Your task to perform on an android device: Open sound settings Image 0: 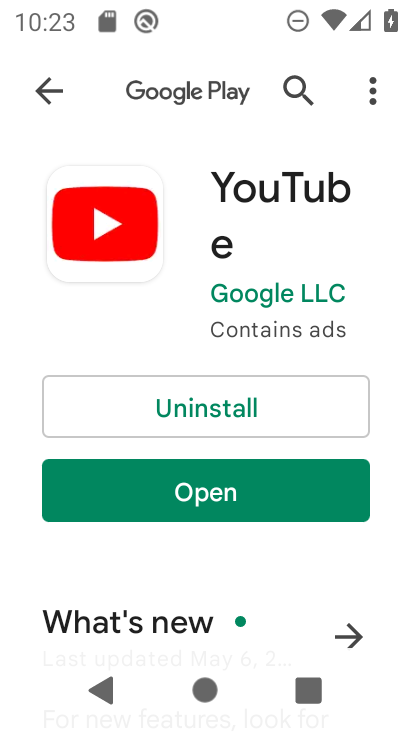
Step 0: click (389, 410)
Your task to perform on an android device: Open sound settings Image 1: 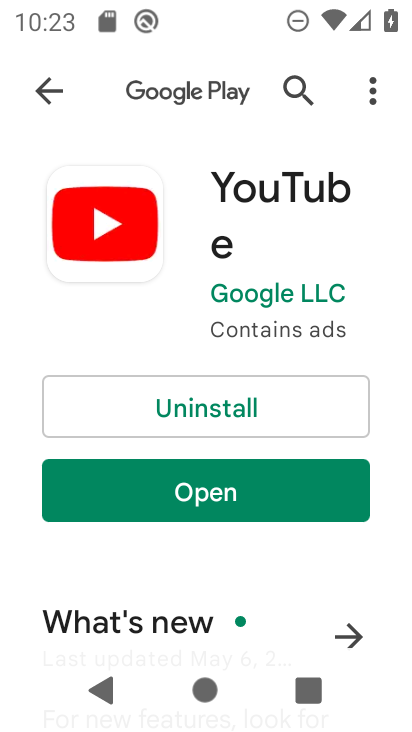
Step 1: press home button
Your task to perform on an android device: Open sound settings Image 2: 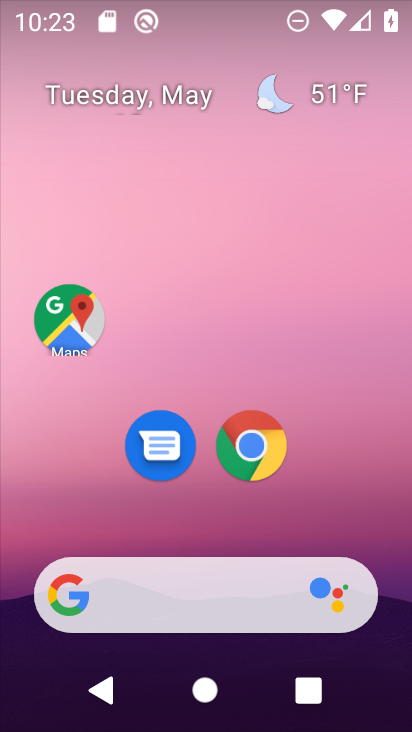
Step 2: drag from (214, 566) to (237, 24)
Your task to perform on an android device: Open sound settings Image 3: 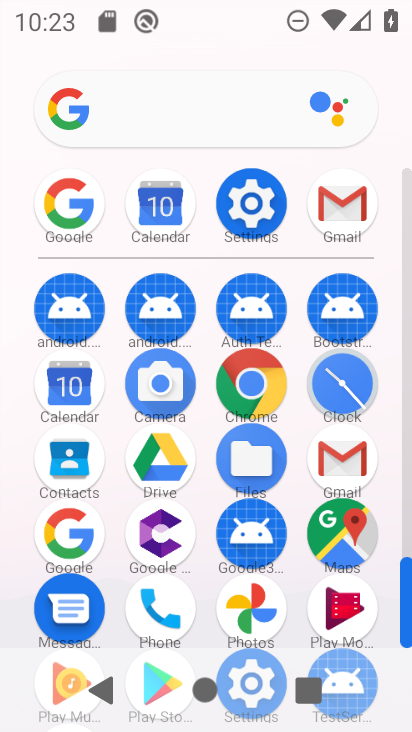
Step 3: click (255, 209)
Your task to perform on an android device: Open sound settings Image 4: 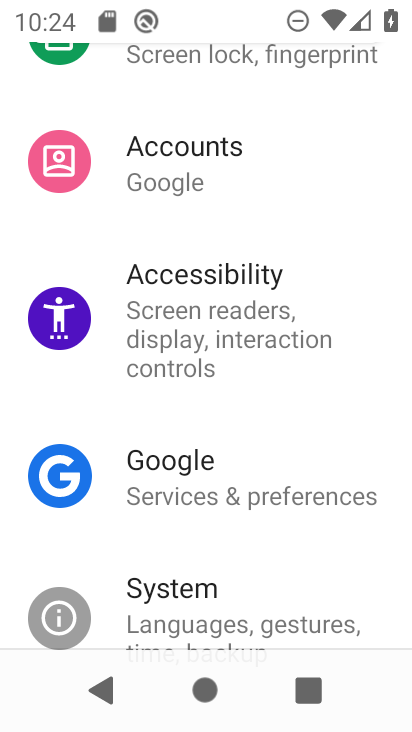
Step 4: drag from (185, 175) to (173, 640)
Your task to perform on an android device: Open sound settings Image 5: 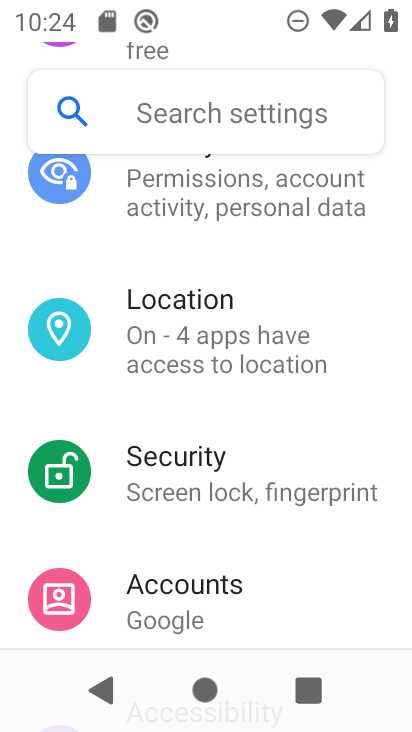
Step 5: drag from (175, 328) to (176, 721)
Your task to perform on an android device: Open sound settings Image 6: 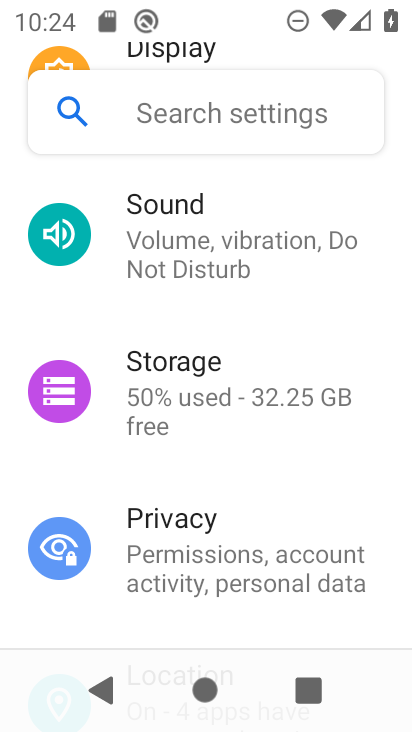
Step 6: click (191, 231)
Your task to perform on an android device: Open sound settings Image 7: 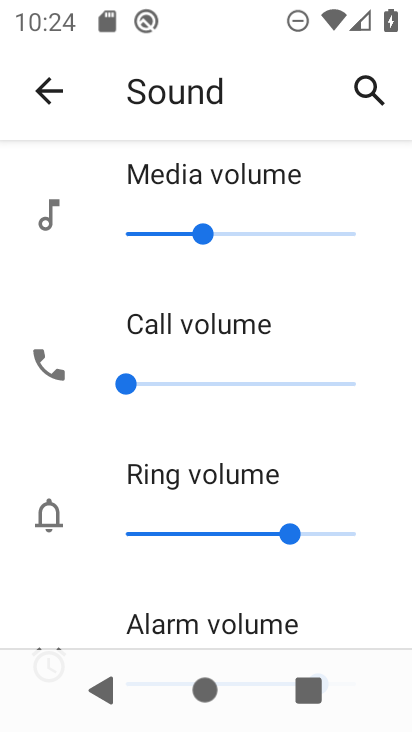
Step 7: task complete